Your task to perform on an android device: turn pop-ups off in chrome Image 0: 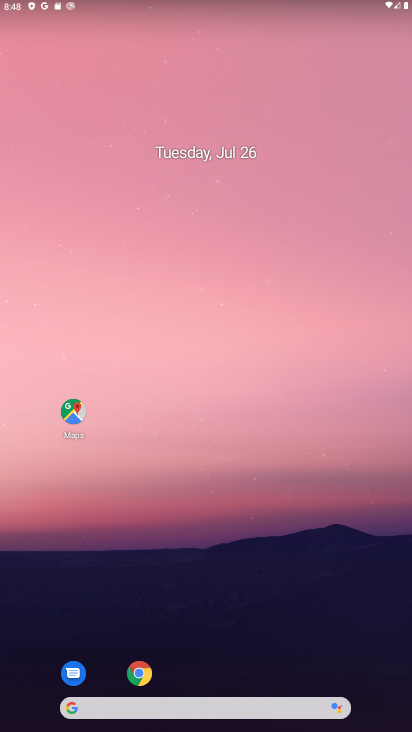
Step 0: drag from (140, 278) to (205, 72)
Your task to perform on an android device: turn pop-ups off in chrome Image 1: 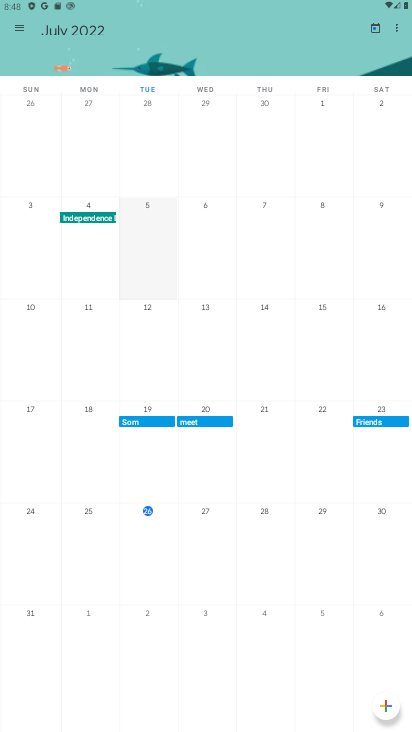
Step 1: drag from (228, 524) to (175, 46)
Your task to perform on an android device: turn pop-ups off in chrome Image 2: 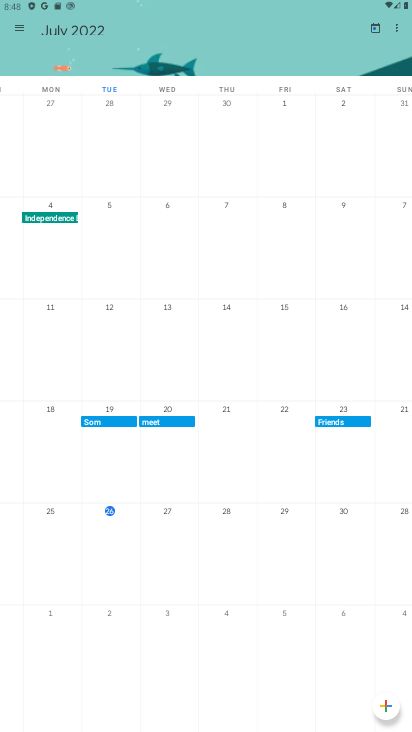
Step 2: drag from (221, 515) to (178, 256)
Your task to perform on an android device: turn pop-ups off in chrome Image 3: 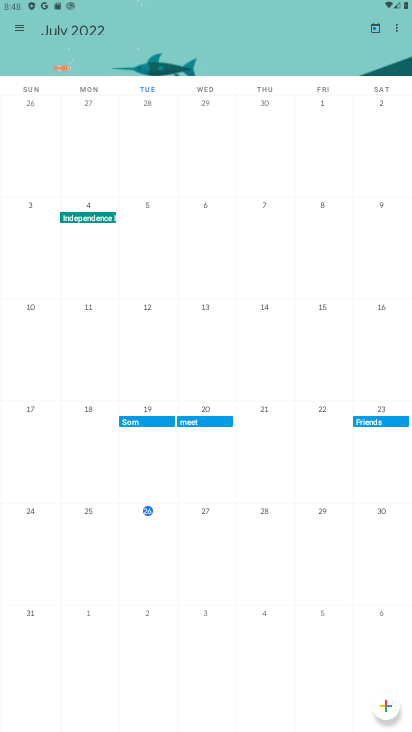
Step 3: press back button
Your task to perform on an android device: turn pop-ups off in chrome Image 4: 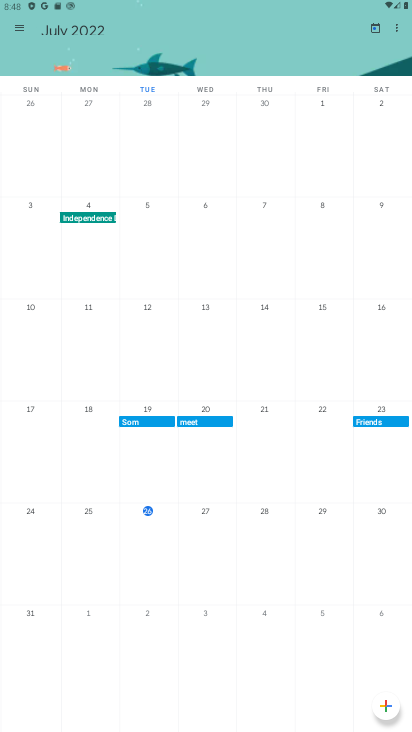
Step 4: press back button
Your task to perform on an android device: turn pop-ups off in chrome Image 5: 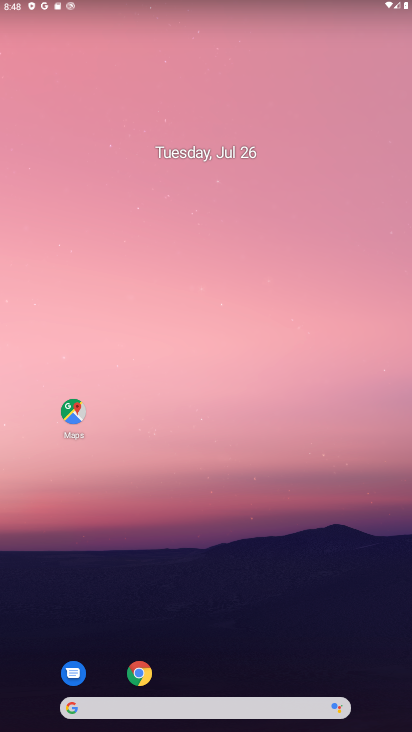
Step 5: drag from (237, 590) to (148, 90)
Your task to perform on an android device: turn pop-ups off in chrome Image 6: 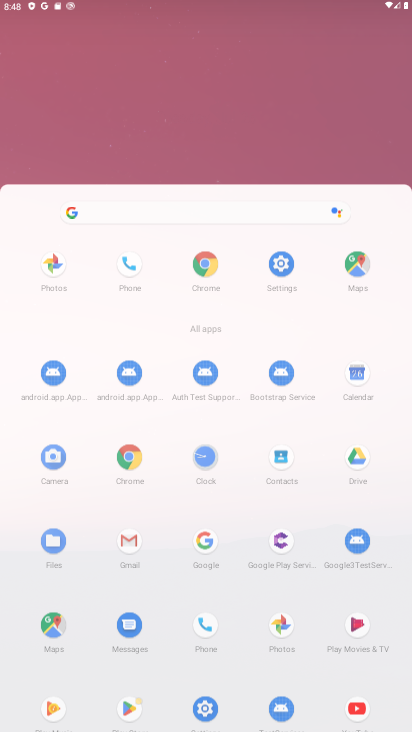
Step 6: drag from (191, 556) to (212, 110)
Your task to perform on an android device: turn pop-ups off in chrome Image 7: 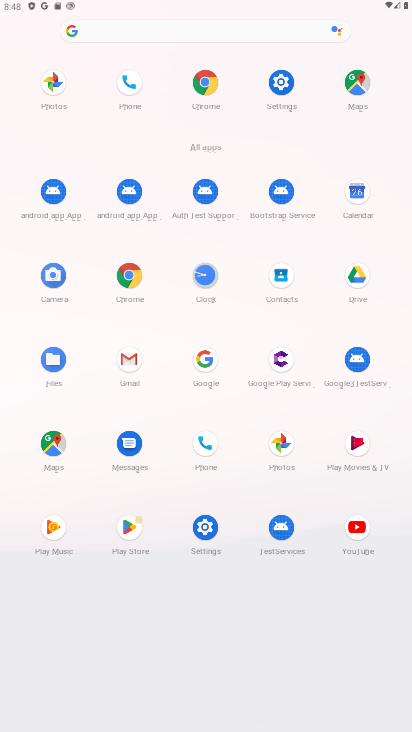
Step 7: click (118, 274)
Your task to perform on an android device: turn pop-ups off in chrome Image 8: 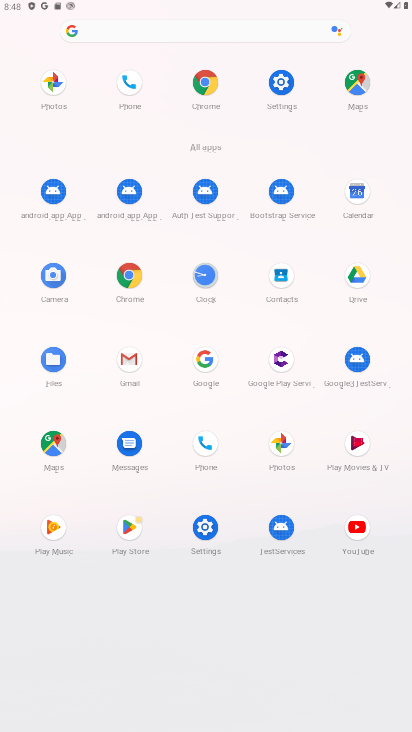
Step 8: click (123, 275)
Your task to perform on an android device: turn pop-ups off in chrome Image 9: 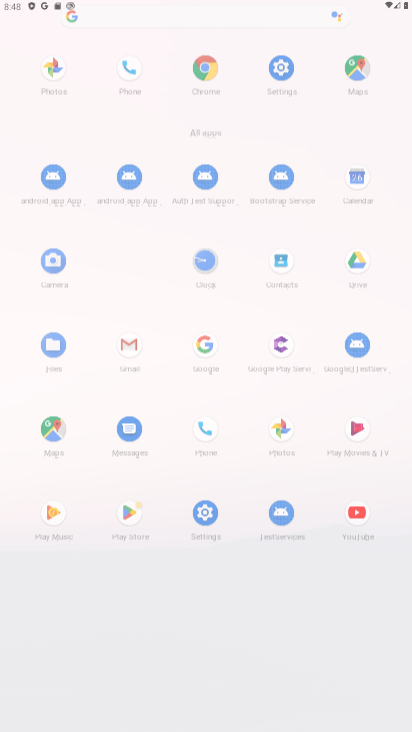
Step 9: click (123, 280)
Your task to perform on an android device: turn pop-ups off in chrome Image 10: 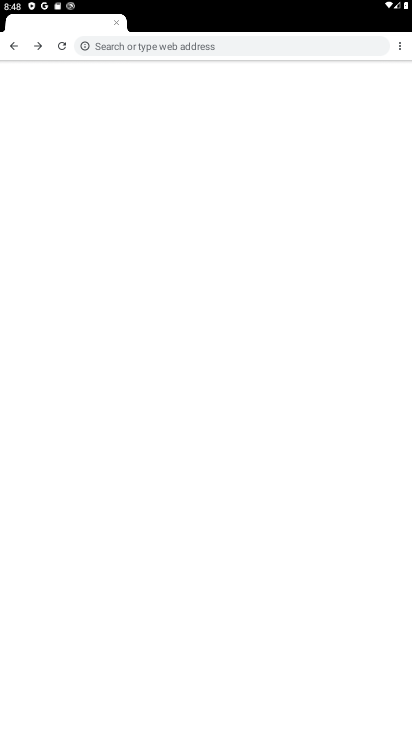
Step 10: click (120, 282)
Your task to perform on an android device: turn pop-ups off in chrome Image 11: 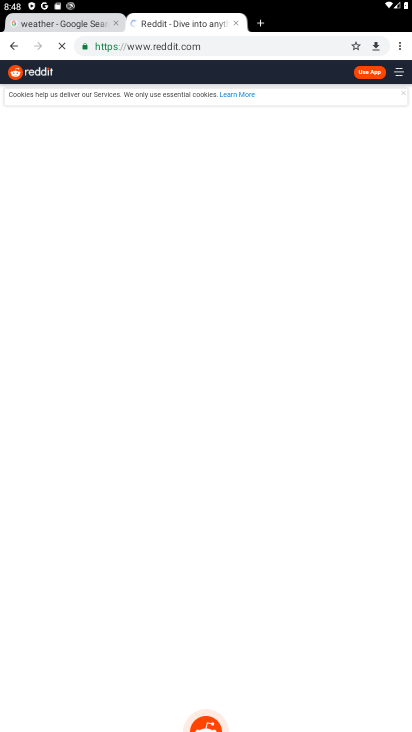
Step 11: drag from (394, 48) to (303, 301)
Your task to perform on an android device: turn pop-ups off in chrome Image 12: 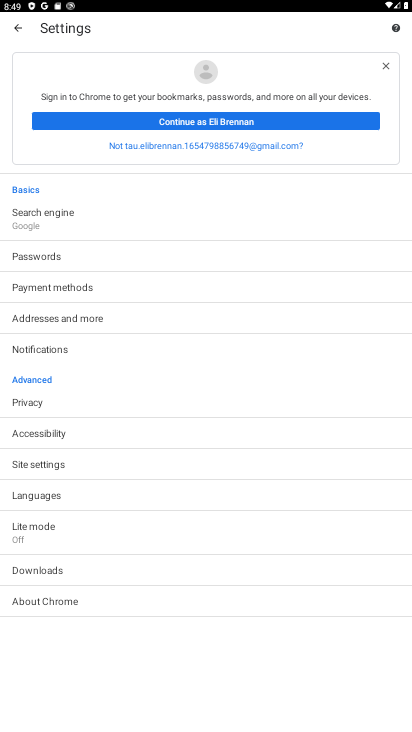
Step 12: click (44, 457)
Your task to perform on an android device: turn pop-ups off in chrome Image 13: 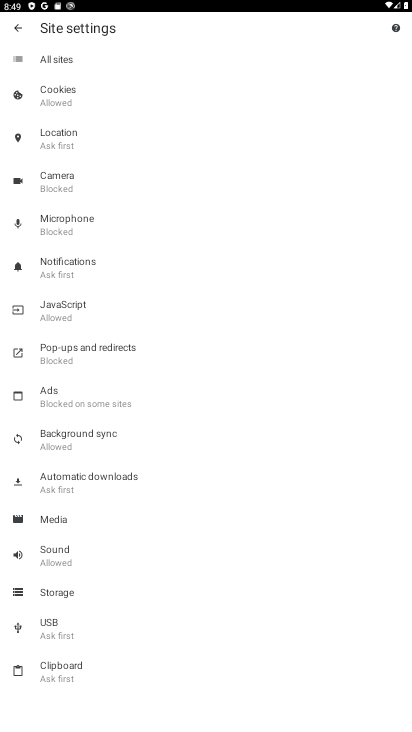
Step 13: click (68, 352)
Your task to perform on an android device: turn pop-ups off in chrome Image 14: 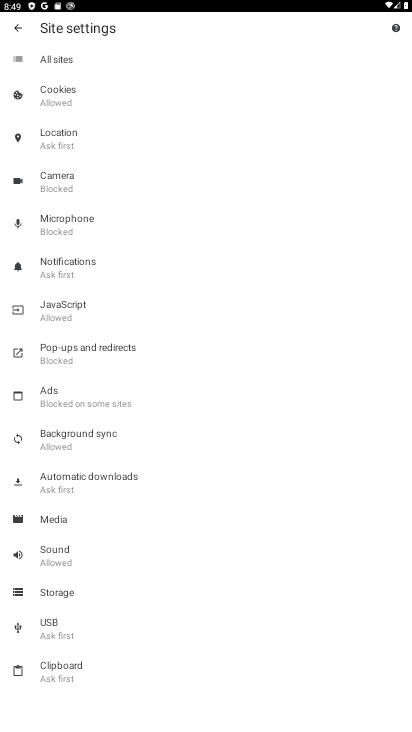
Step 14: click (68, 352)
Your task to perform on an android device: turn pop-ups off in chrome Image 15: 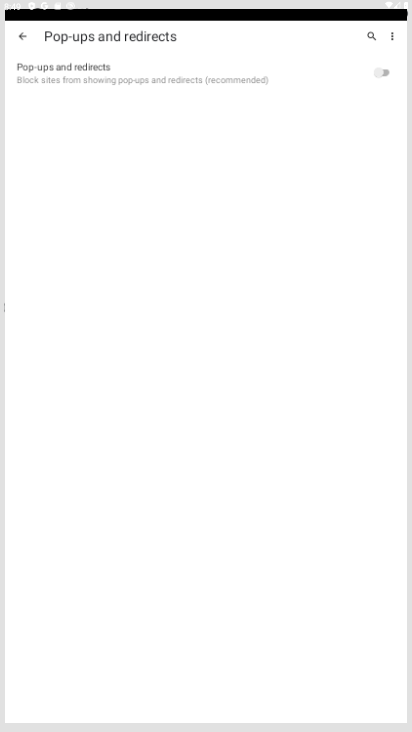
Step 15: click (68, 352)
Your task to perform on an android device: turn pop-ups off in chrome Image 16: 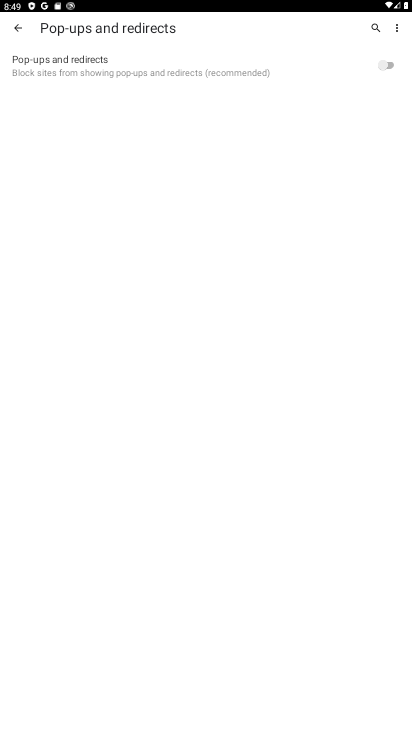
Step 16: task complete